Your task to perform on an android device: open app "Viber Messenger" (install if not already installed), go to login, and select forgot password Image 0: 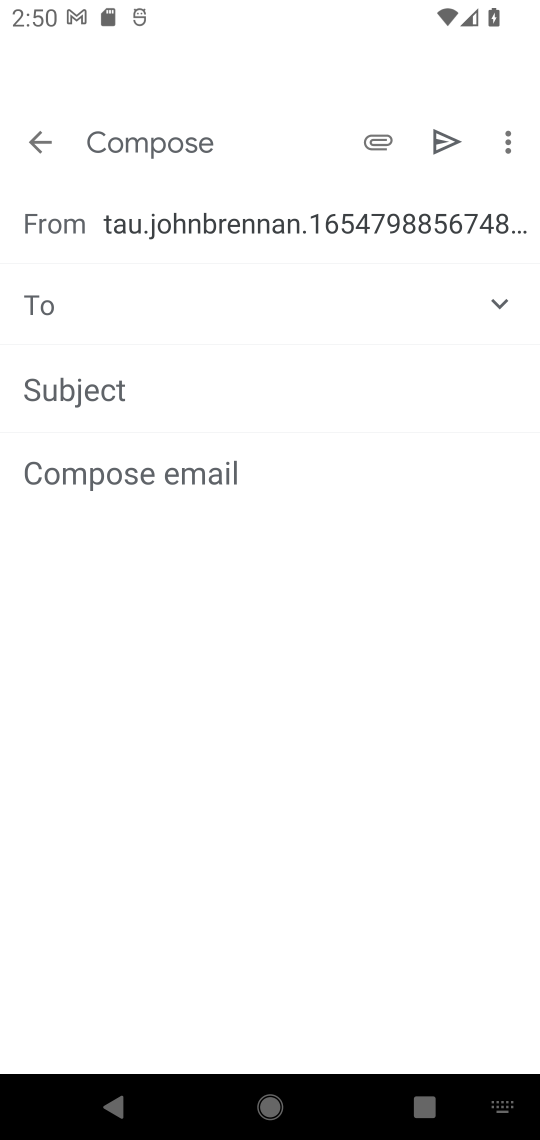
Step 0: press home button
Your task to perform on an android device: open app "Viber Messenger" (install if not already installed), go to login, and select forgot password Image 1: 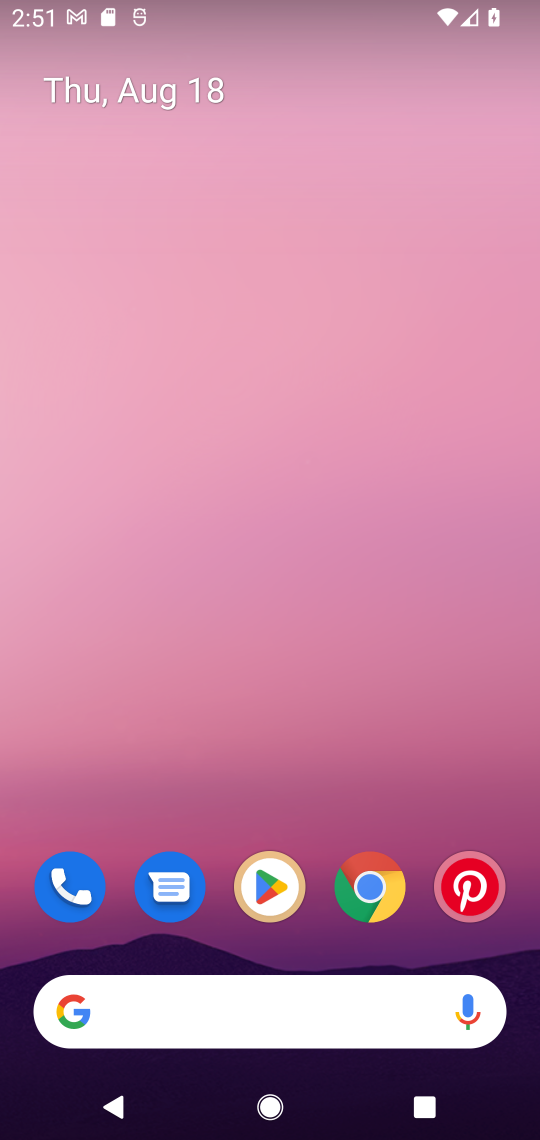
Step 1: drag from (314, 842) to (356, 0)
Your task to perform on an android device: open app "Viber Messenger" (install if not already installed), go to login, and select forgot password Image 2: 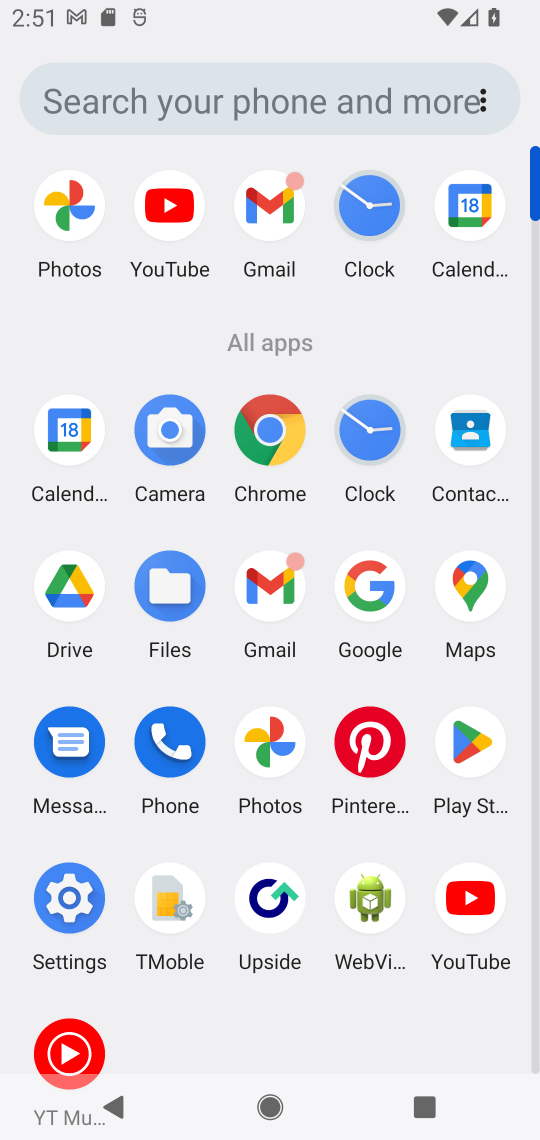
Step 2: click (468, 734)
Your task to perform on an android device: open app "Viber Messenger" (install if not already installed), go to login, and select forgot password Image 3: 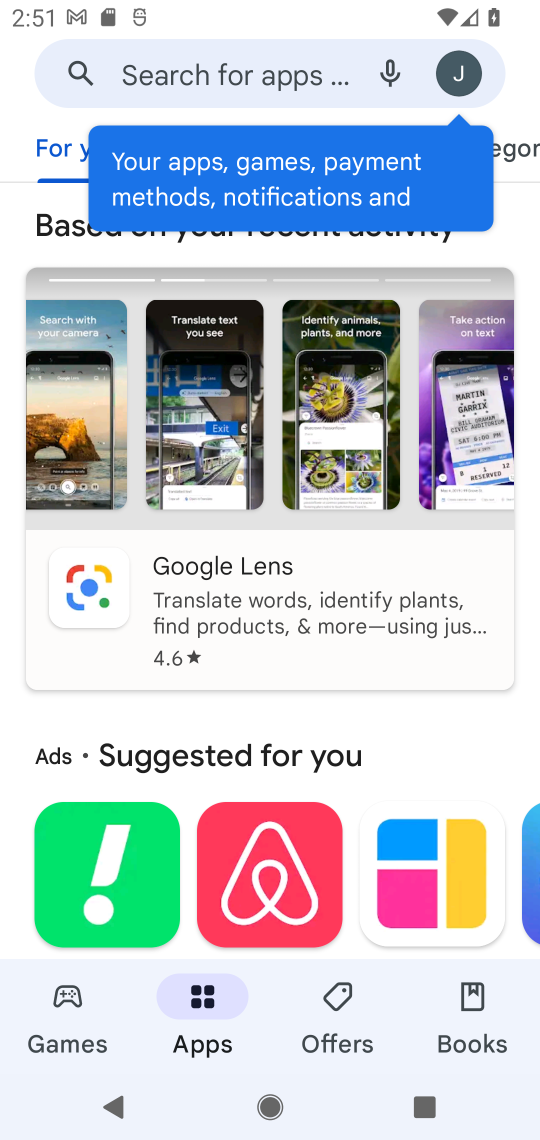
Step 3: click (209, 57)
Your task to perform on an android device: open app "Viber Messenger" (install if not already installed), go to login, and select forgot password Image 4: 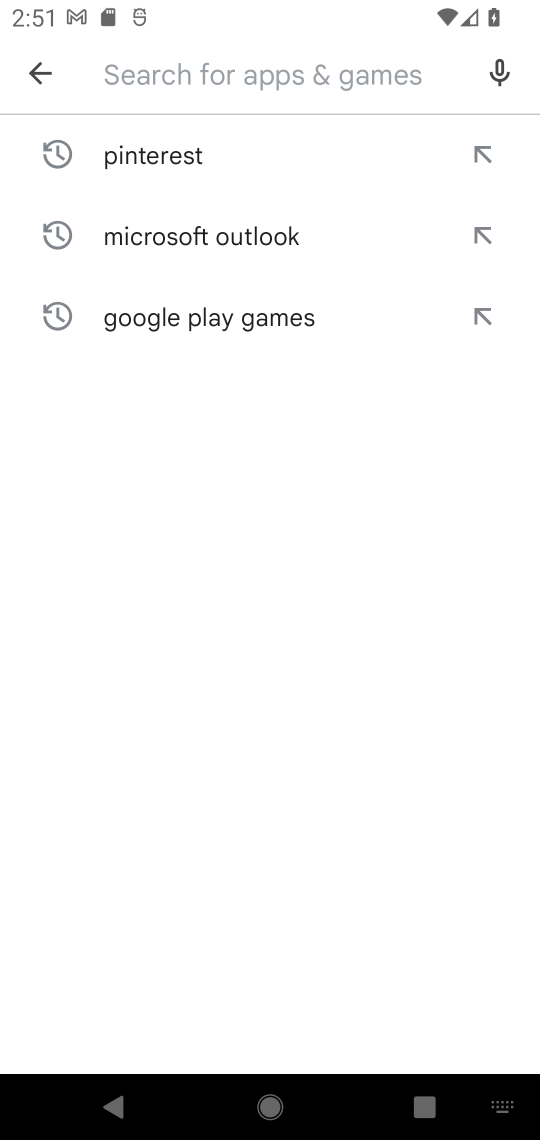
Step 4: type "Viber Messenger"
Your task to perform on an android device: open app "Viber Messenger" (install if not already installed), go to login, and select forgot password Image 5: 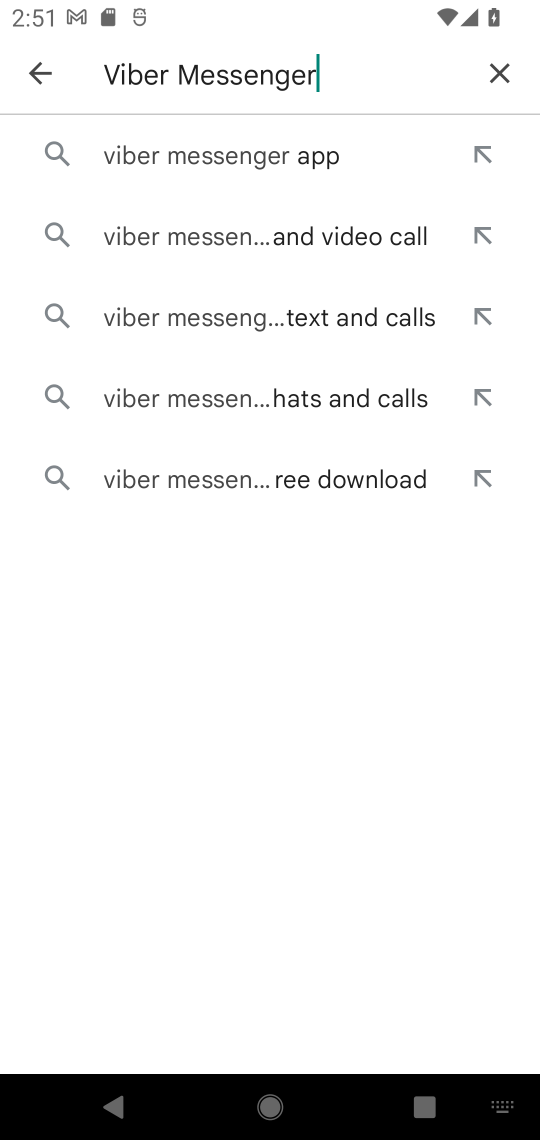
Step 5: click (147, 154)
Your task to perform on an android device: open app "Viber Messenger" (install if not already installed), go to login, and select forgot password Image 6: 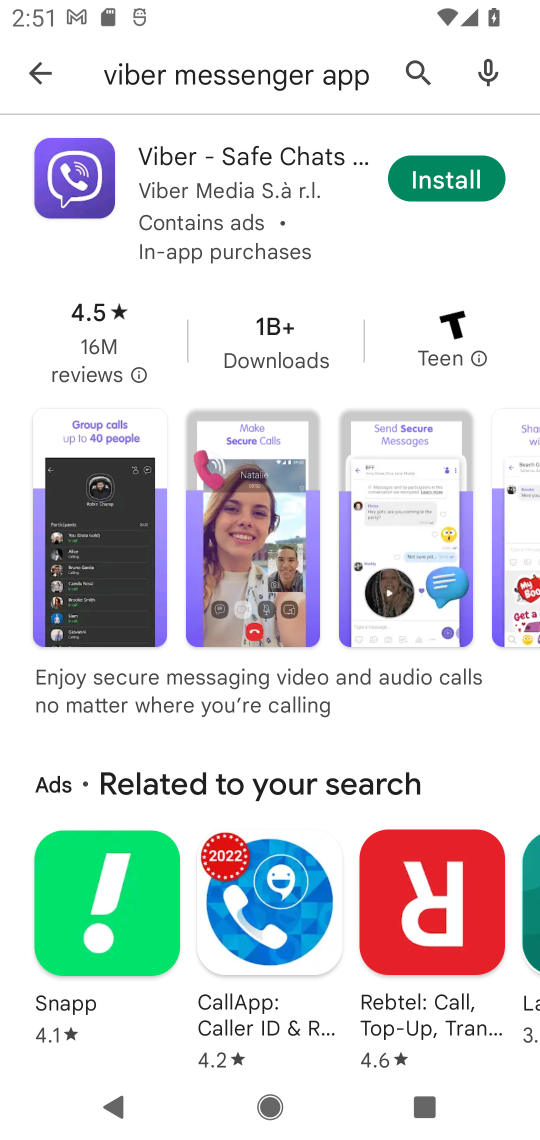
Step 6: click (459, 175)
Your task to perform on an android device: open app "Viber Messenger" (install if not already installed), go to login, and select forgot password Image 7: 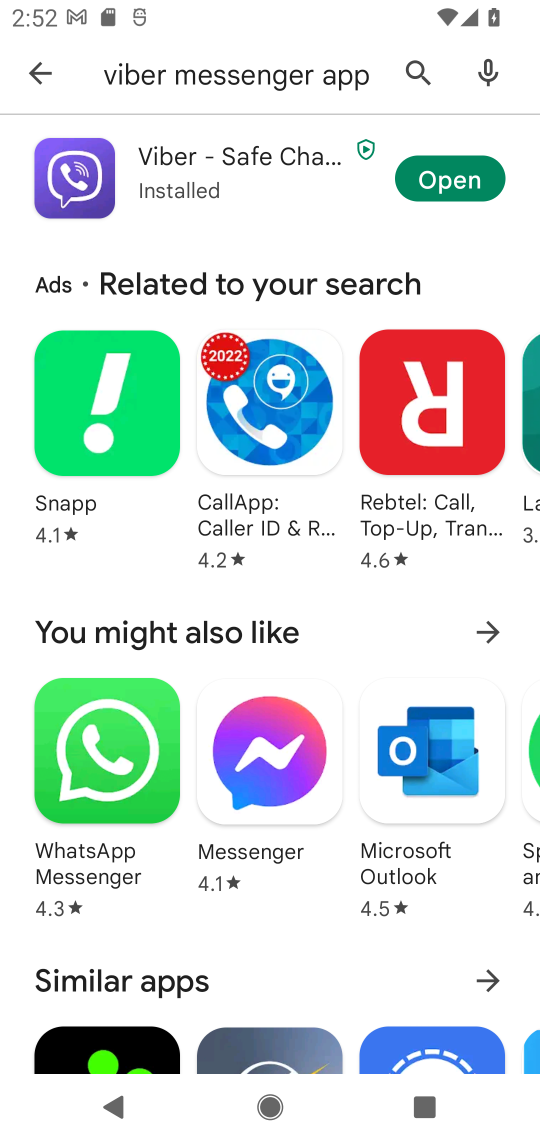
Step 7: click (448, 185)
Your task to perform on an android device: open app "Viber Messenger" (install if not already installed), go to login, and select forgot password Image 8: 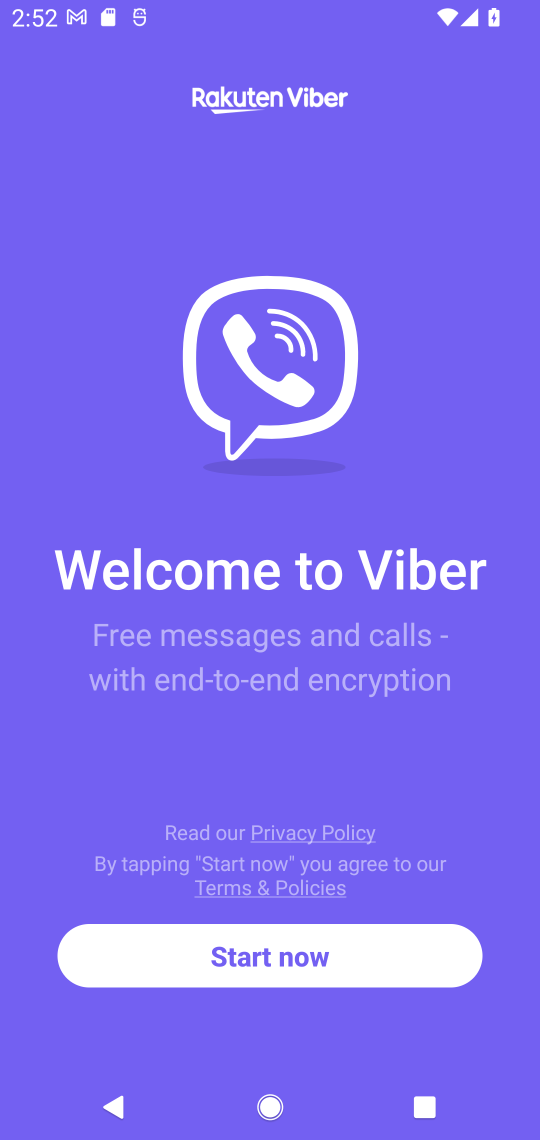
Step 8: click (270, 959)
Your task to perform on an android device: open app "Viber Messenger" (install if not already installed), go to login, and select forgot password Image 9: 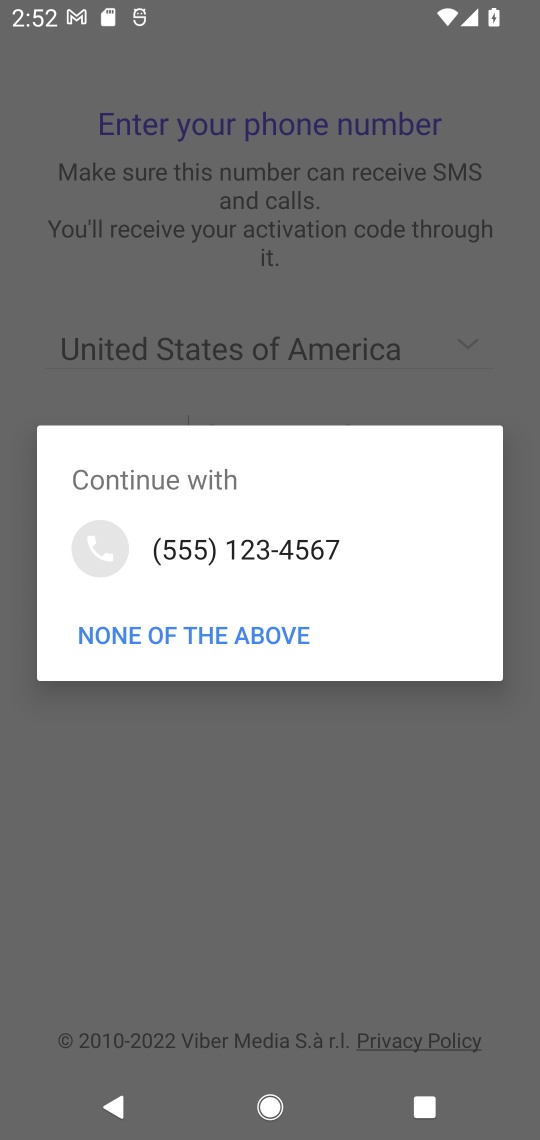
Step 9: click (220, 534)
Your task to perform on an android device: open app "Viber Messenger" (install if not already installed), go to login, and select forgot password Image 10: 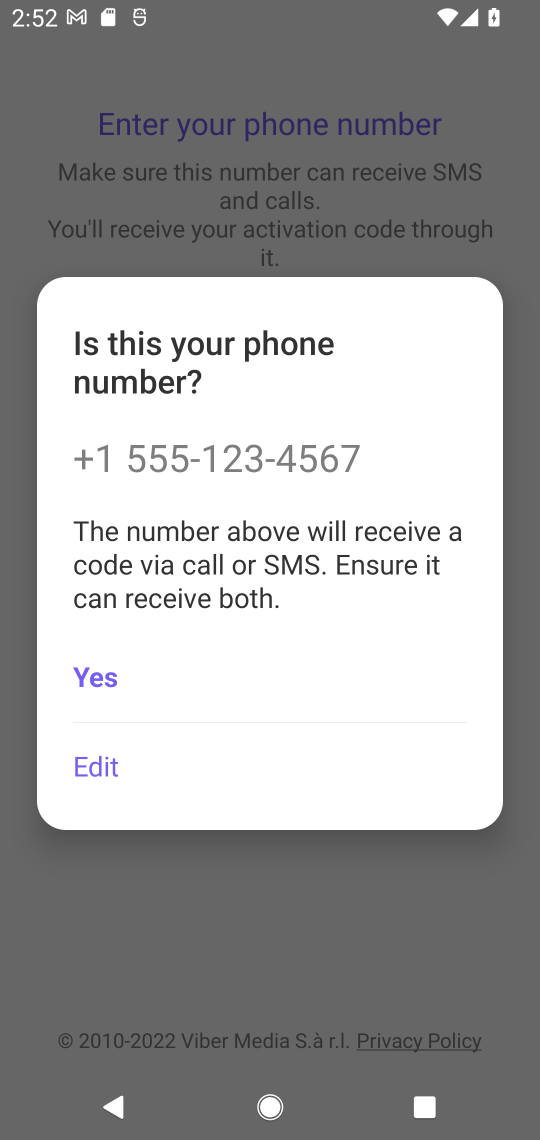
Step 10: click (94, 690)
Your task to perform on an android device: open app "Viber Messenger" (install if not already installed), go to login, and select forgot password Image 11: 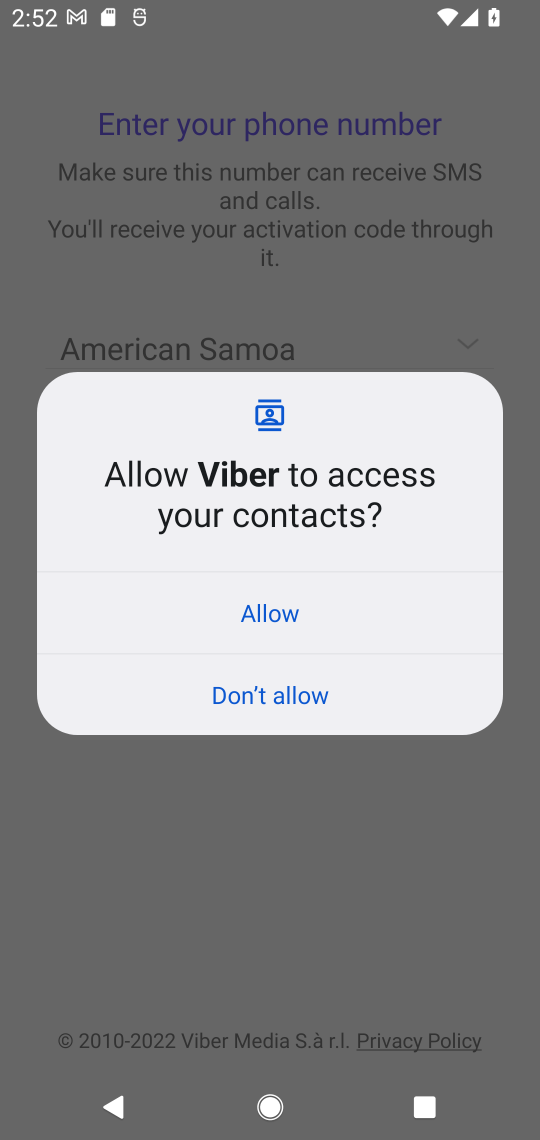
Step 11: click (292, 620)
Your task to perform on an android device: open app "Viber Messenger" (install if not already installed), go to login, and select forgot password Image 12: 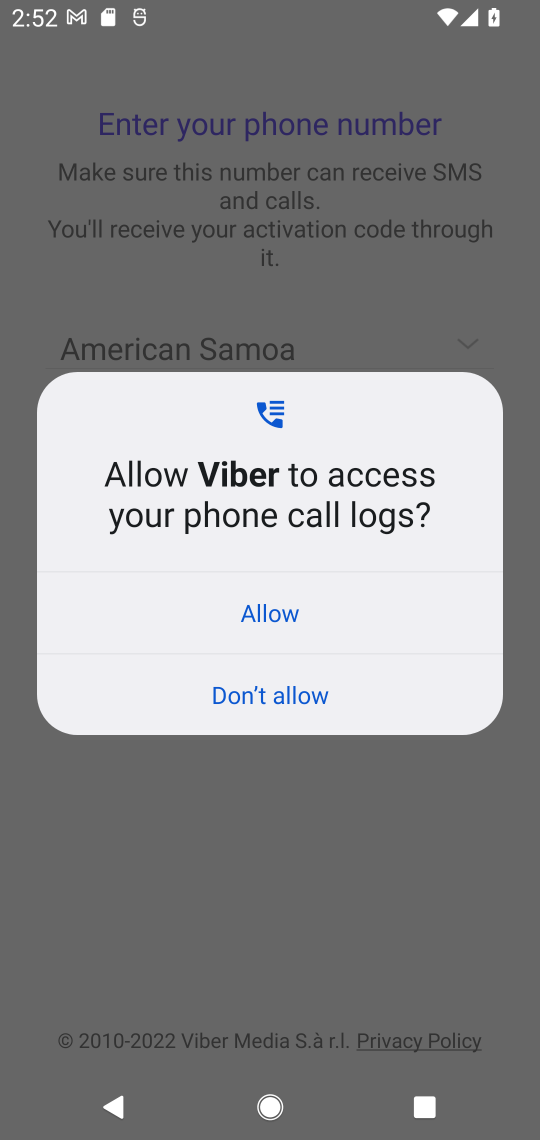
Step 12: click (233, 622)
Your task to perform on an android device: open app "Viber Messenger" (install if not already installed), go to login, and select forgot password Image 13: 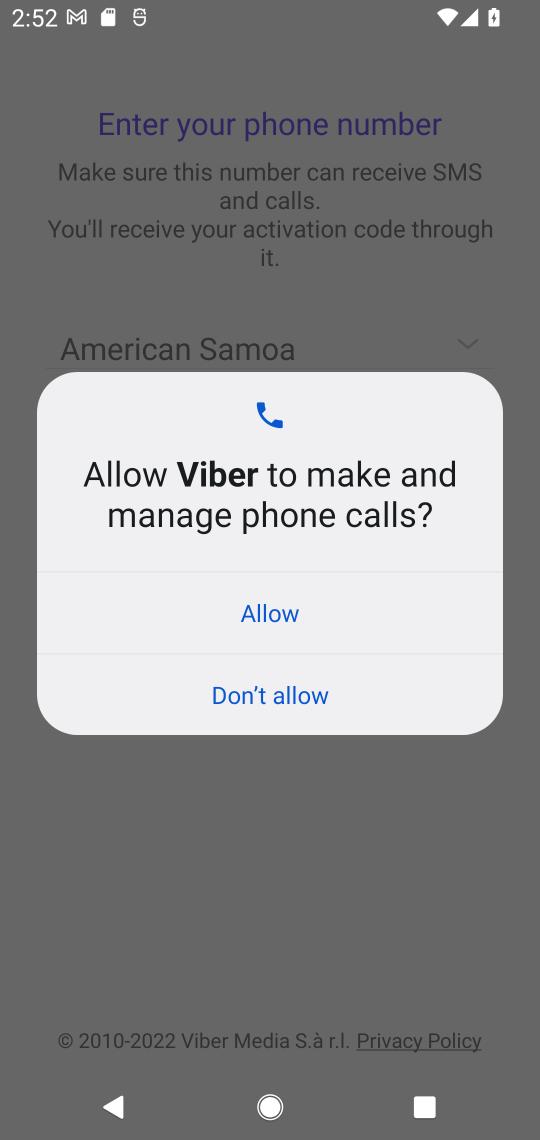
Step 13: click (243, 625)
Your task to perform on an android device: open app "Viber Messenger" (install if not already installed), go to login, and select forgot password Image 14: 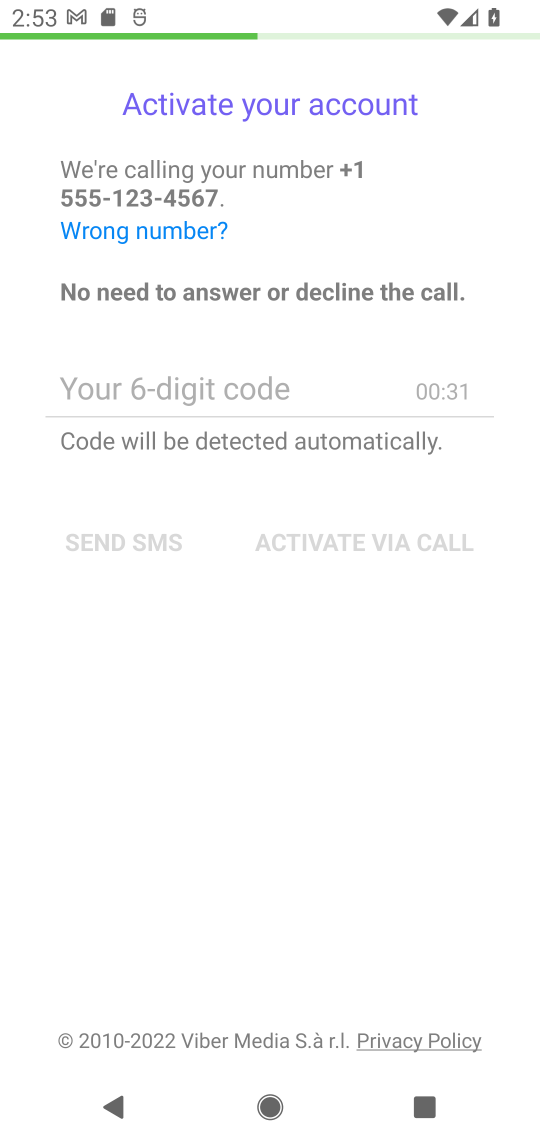
Step 14: task complete